Your task to perform on an android device: Search for the Nintendo Switch. Image 0: 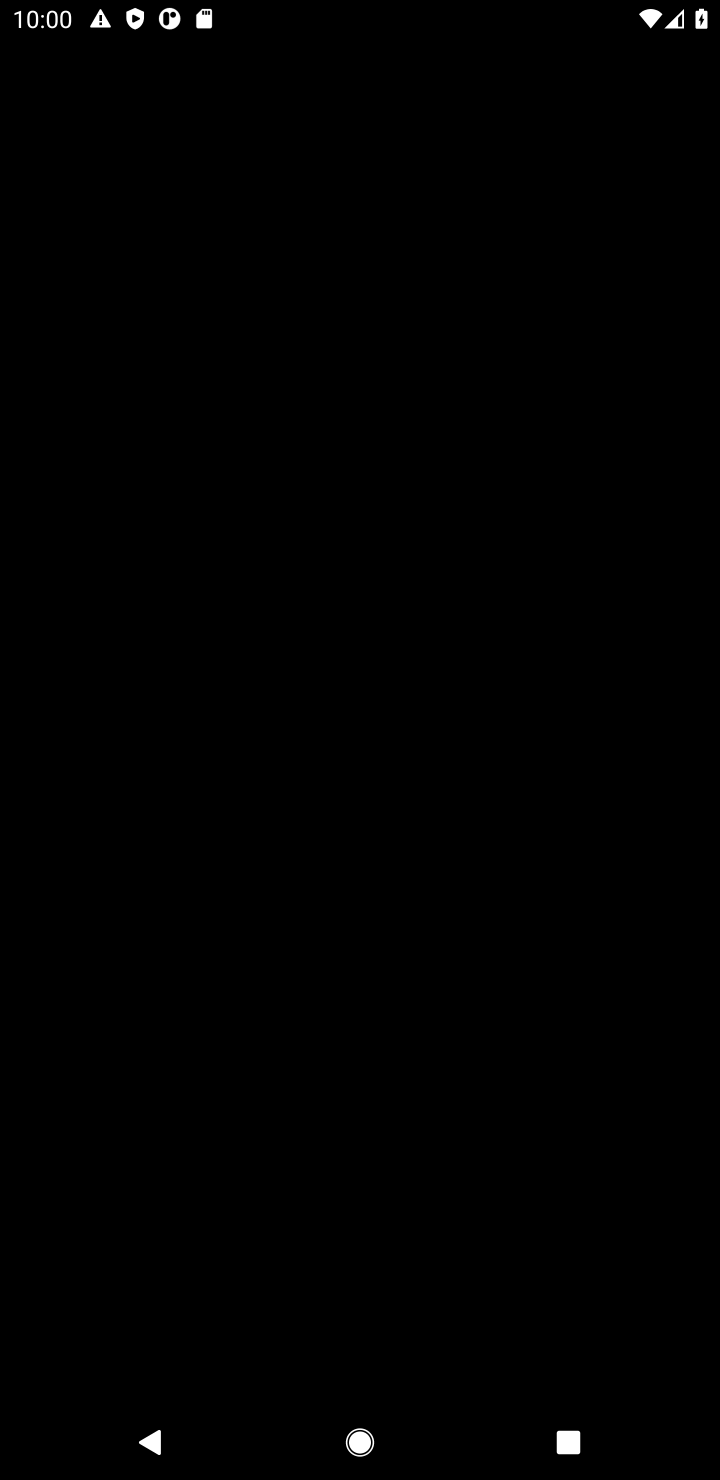
Step 0: press home button
Your task to perform on an android device: Search for the Nintendo Switch. Image 1: 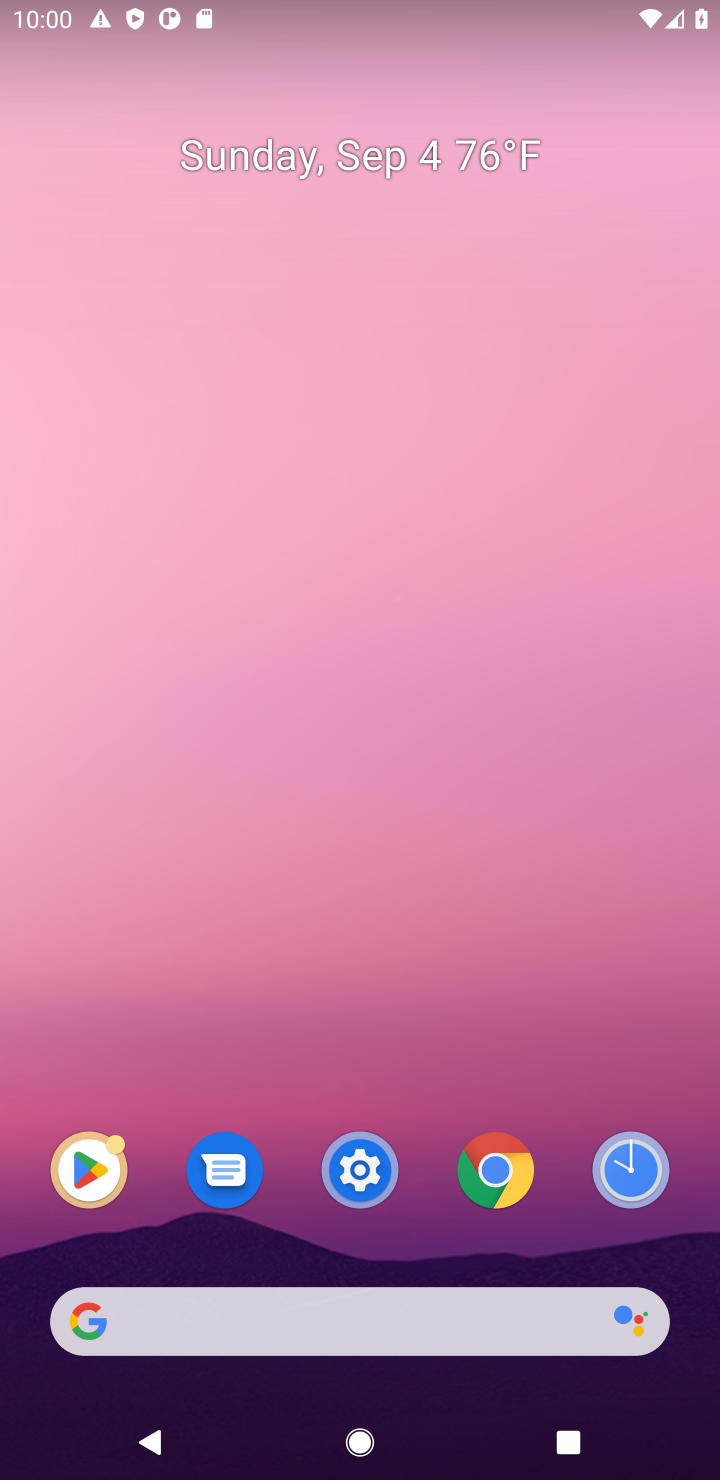
Step 1: click (256, 1305)
Your task to perform on an android device: Search for the Nintendo Switch. Image 2: 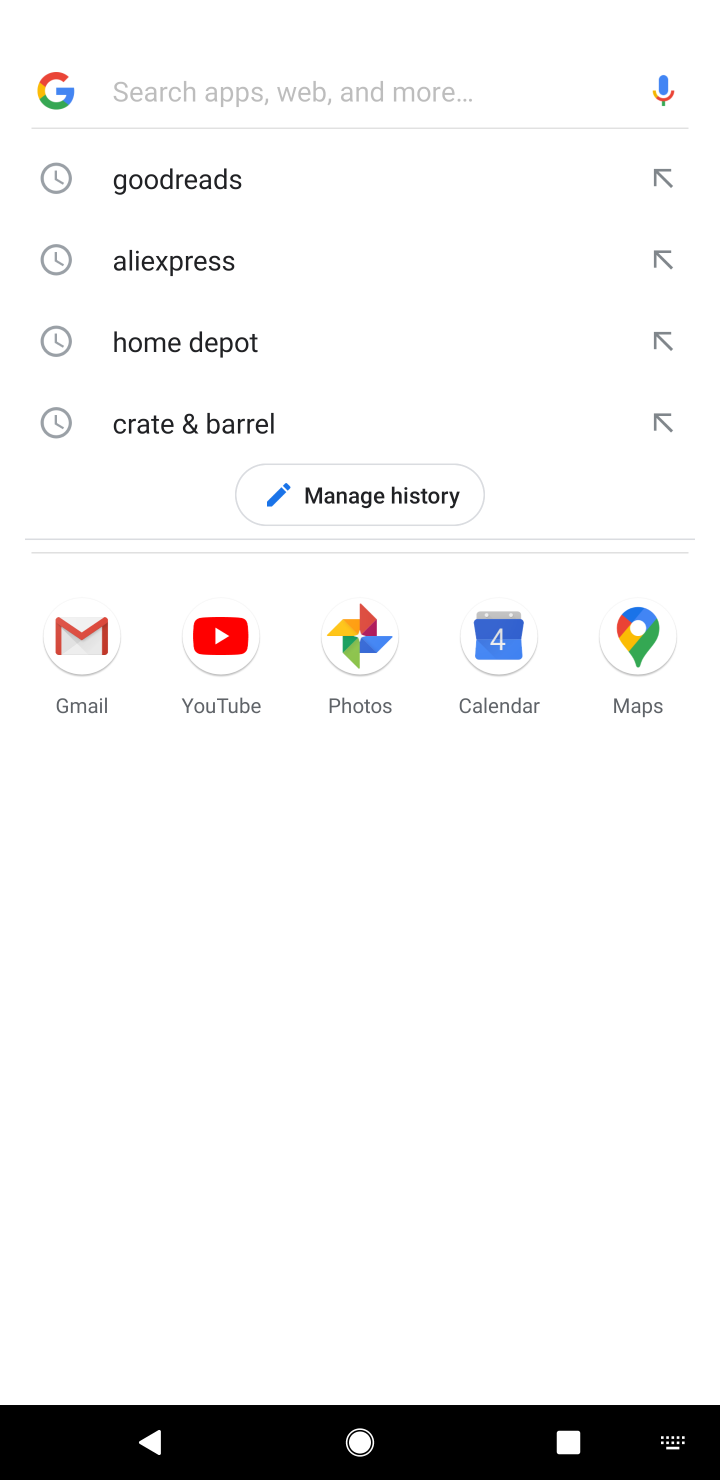
Step 2: type "Nintendo Switch"
Your task to perform on an android device: Search for the Nintendo Switch. Image 3: 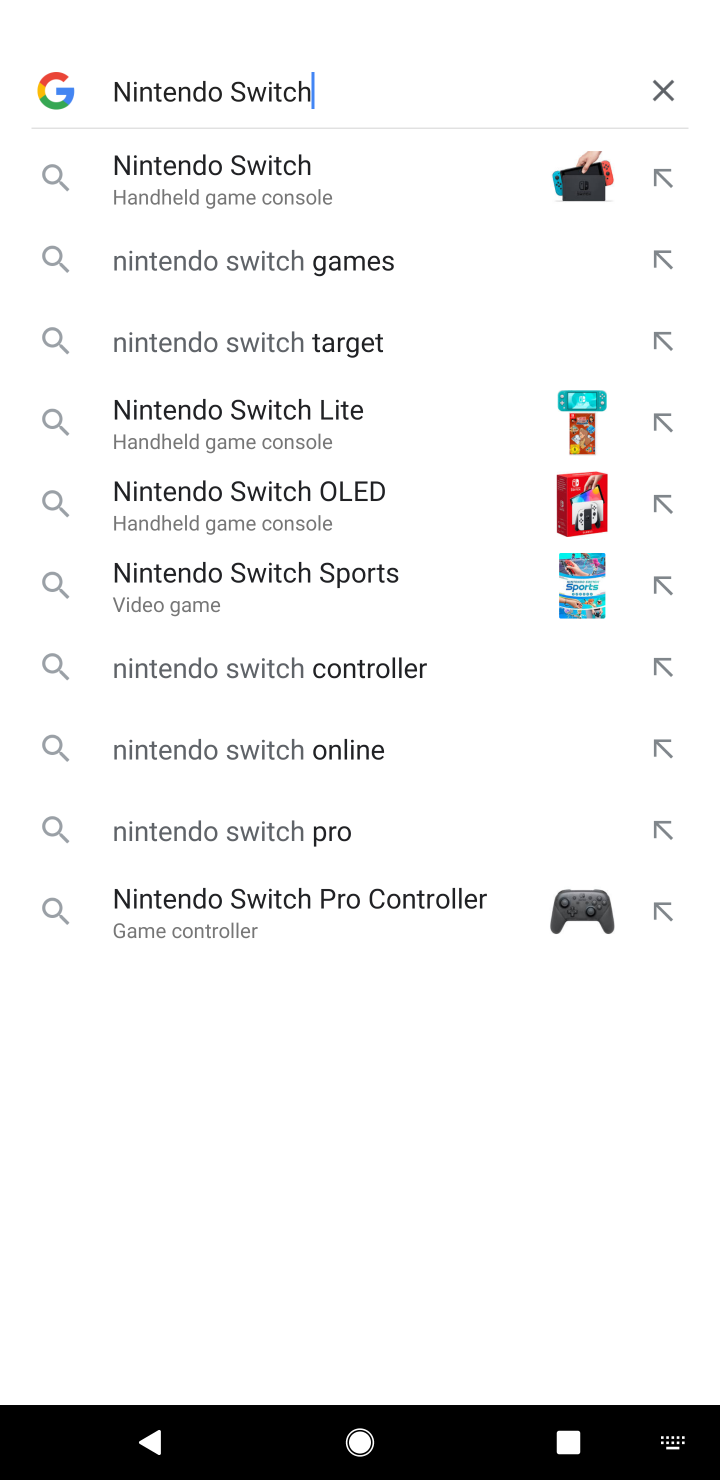
Step 3: click (246, 215)
Your task to perform on an android device: Search for the Nintendo Switch. Image 4: 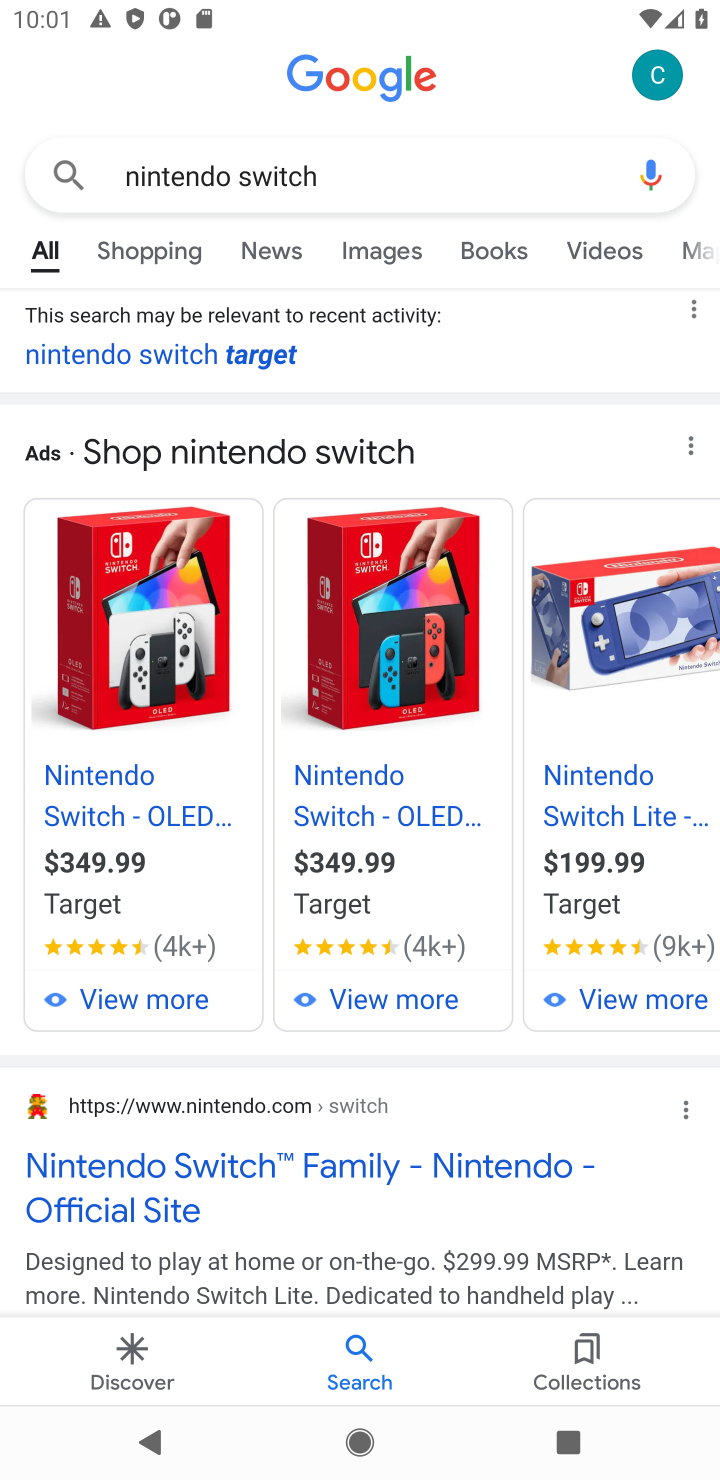
Step 4: click (307, 1170)
Your task to perform on an android device: Search for the Nintendo Switch. Image 5: 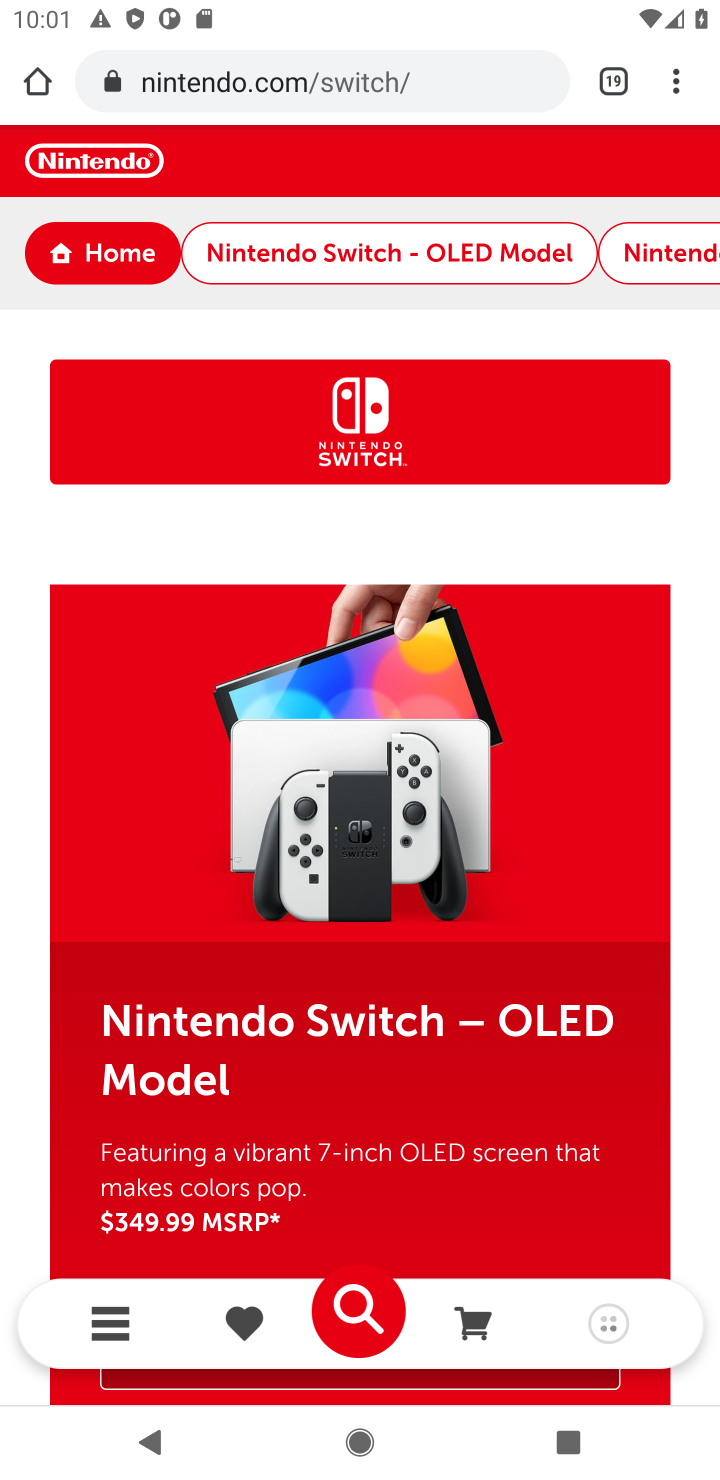
Step 5: drag from (427, 1187) to (447, 576)
Your task to perform on an android device: Search for the Nintendo Switch. Image 6: 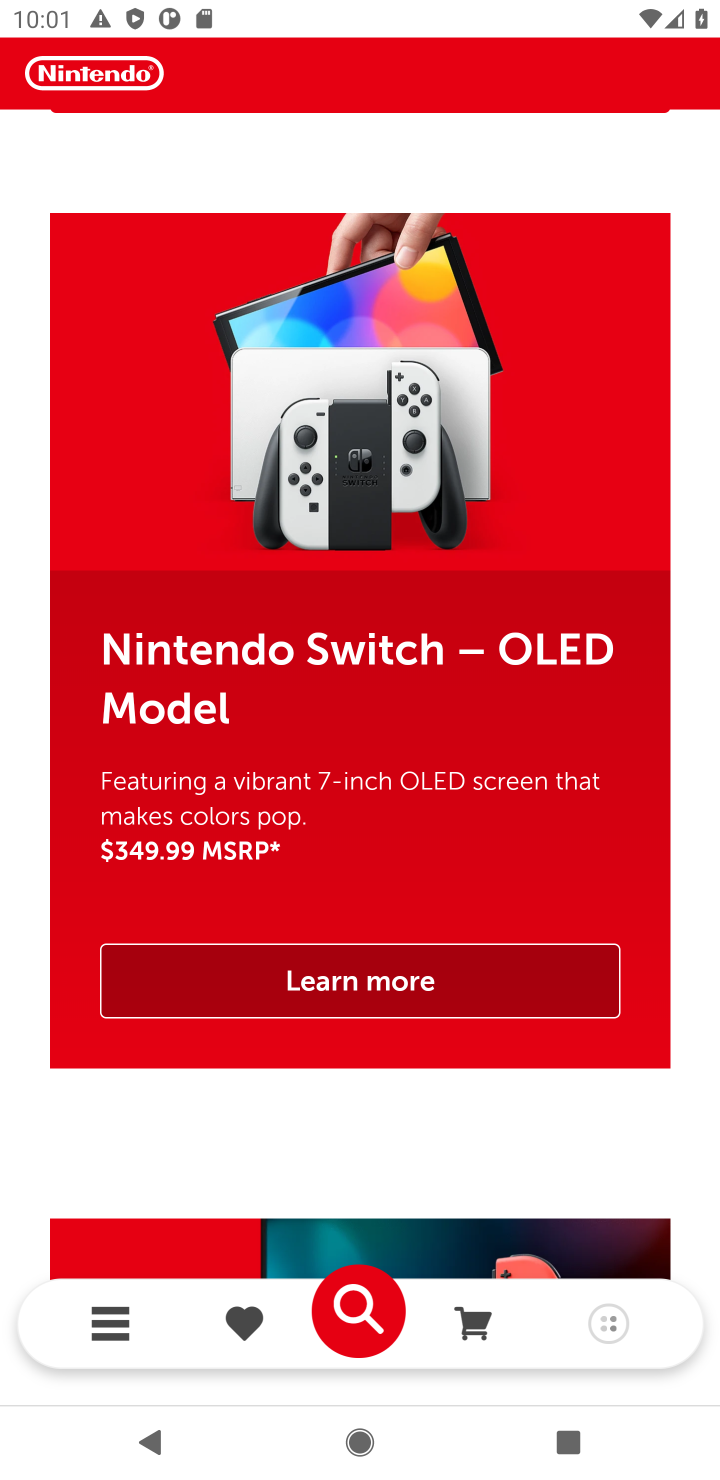
Step 6: click (419, 321)
Your task to perform on an android device: Search for the Nintendo Switch. Image 7: 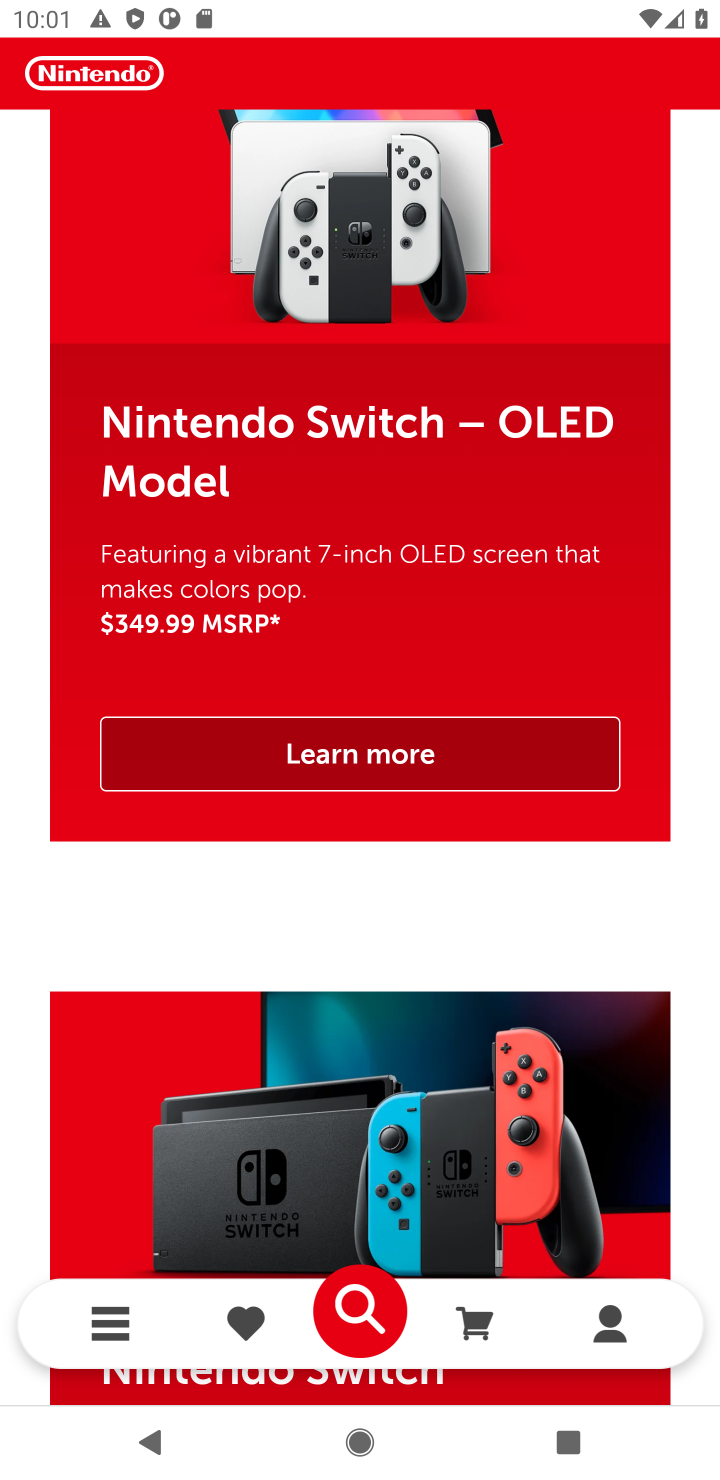
Step 7: click (471, 512)
Your task to perform on an android device: Search for the Nintendo Switch. Image 8: 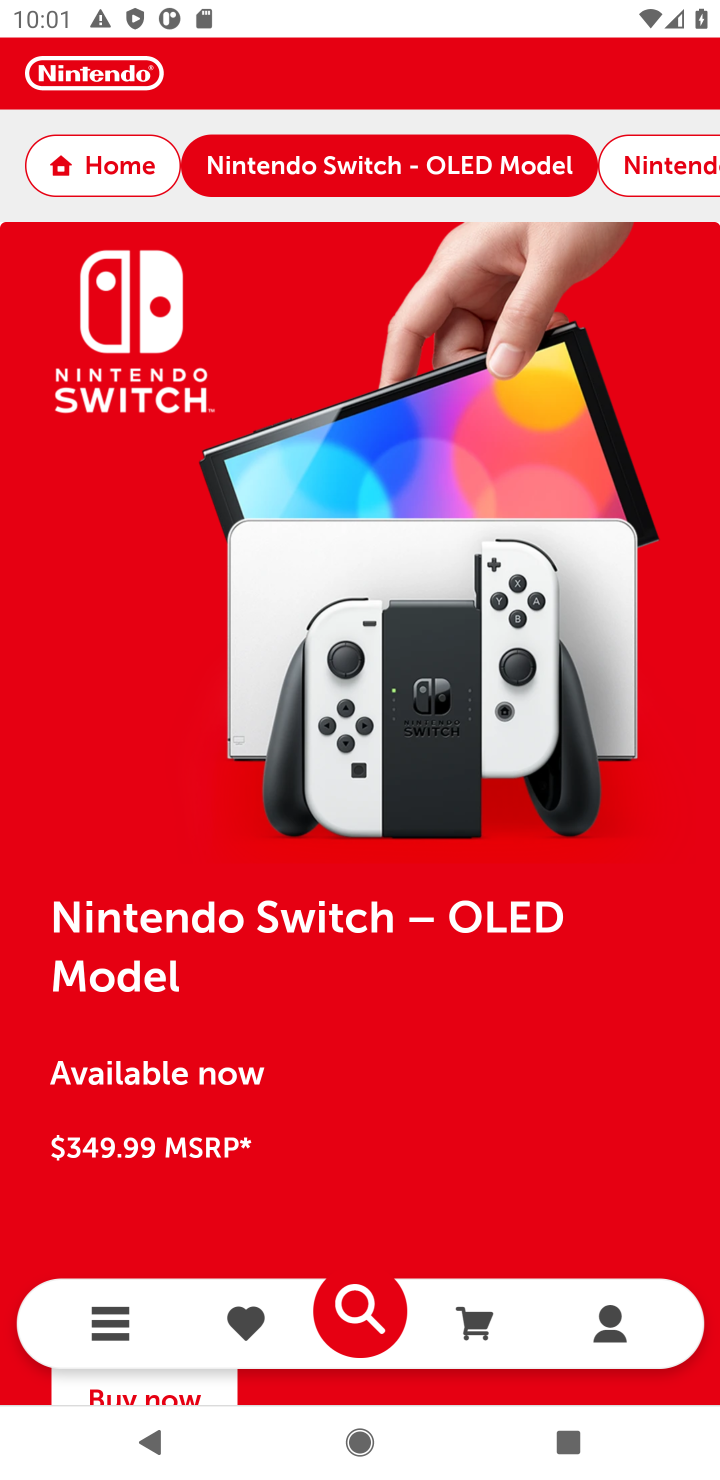
Step 8: task complete